Your task to perform on an android device: Open internet settings Image 0: 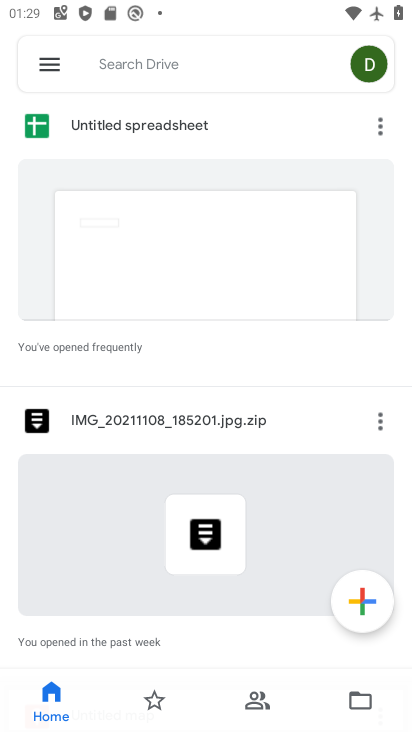
Step 0: press home button
Your task to perform on an android device: Open internet settings Image 1: 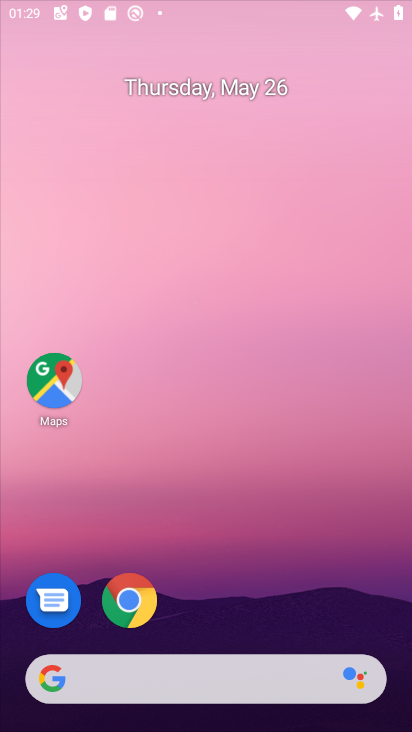
Step 1: drag from (297, 549) to (277, 181)
Your task to perform on an android device: Open internet settings Image 2: 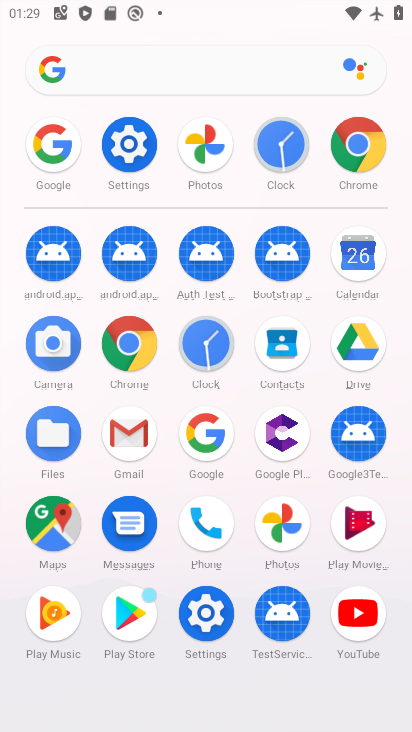
Step 2: click (142, 145)
Your task to perform on an android device: Open internet settings Image 3: 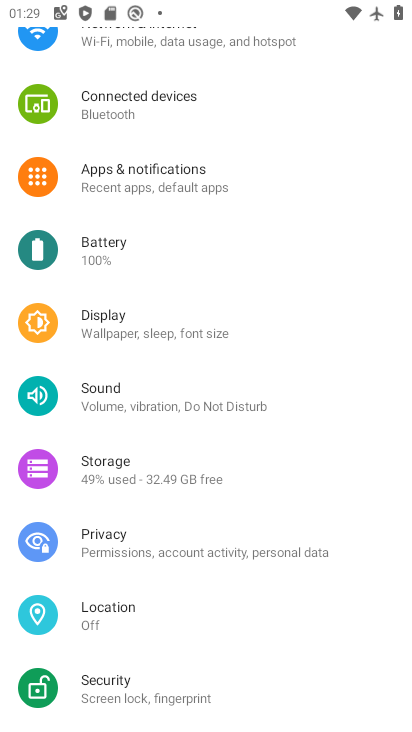
Step 3: click (173, 40)
Your task to perform on an android device: Open internet settings Image 4: 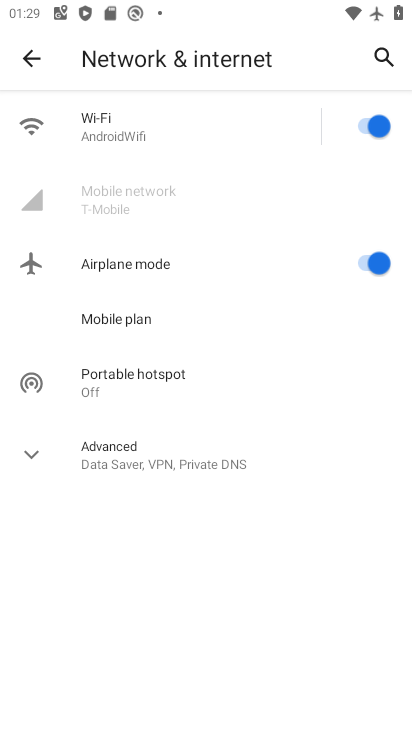
Step 4: task complete